Your task to perform on an android device: turn off smart reply in the gmail app Image 0: 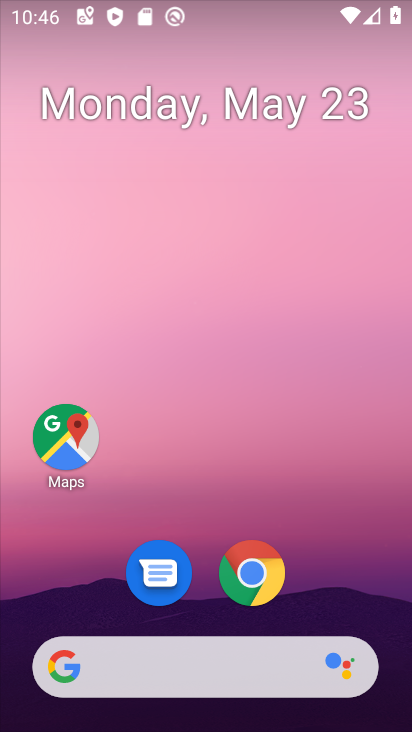
Step 0: drag from (281, 610) to (292, 286)
Your task to perform on an android device: turn off smart reply in the gmail app Image 1: 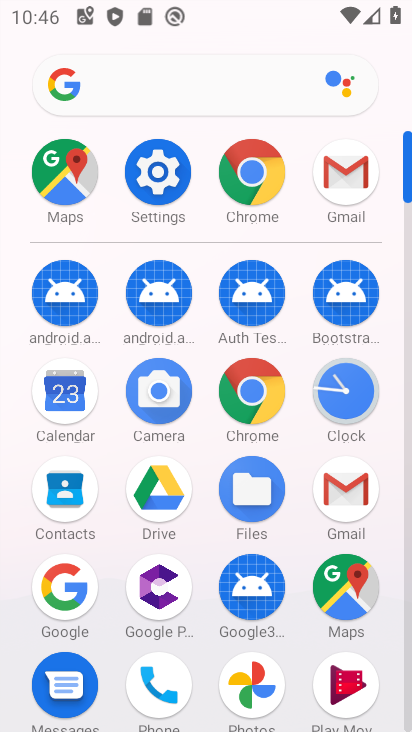
Step 1: click (349, 187)
Your task to perform on an android device: turn off smart reply in the gmail app Image 2: 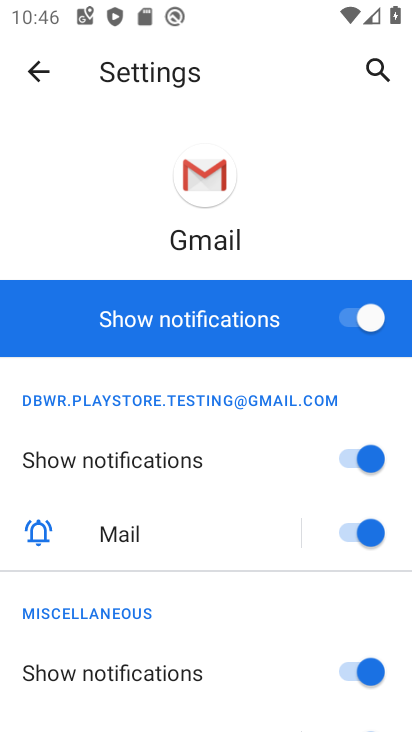
Step 2: click (40, 73)
Your task to perform on an android device: turn off smart reply in the gmail app Image 3: 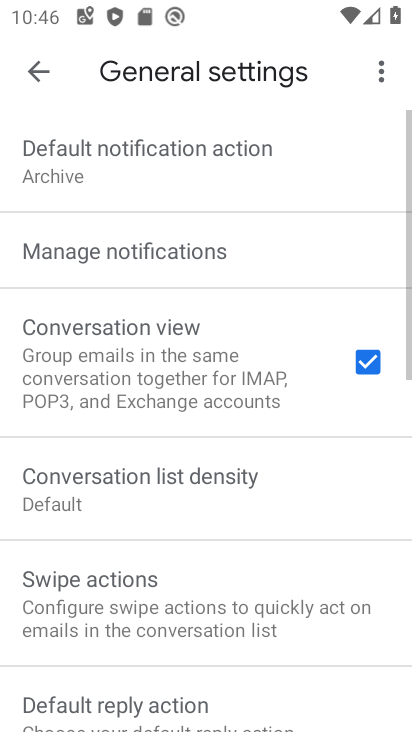
Step 3: click (40, 73)
Your task to perform on an android device: turn off smart reply in the gmail app Image 4: 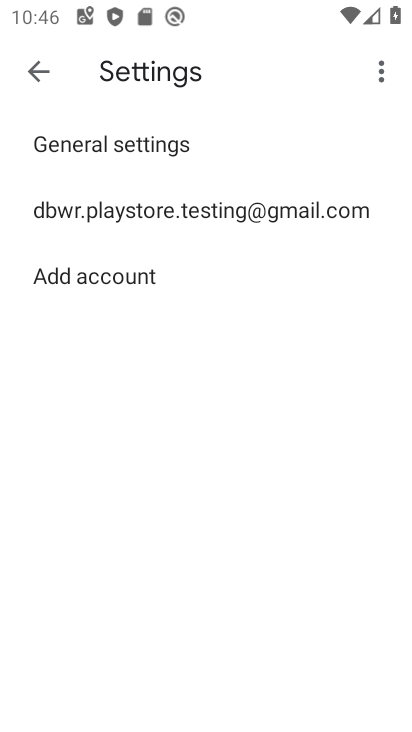
Step 4: click (109, 214)
Your task to perform on an android device: turn off smart reply in the gmail app Image 5: 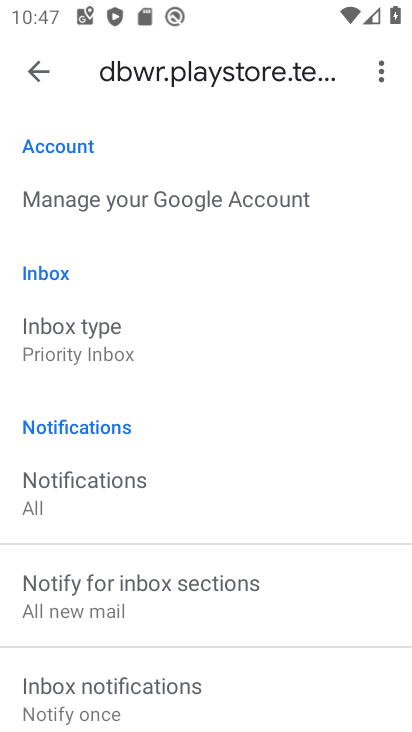
Step 5: task complete